Your task to perform on an android device: turn notification dots off Image 0: 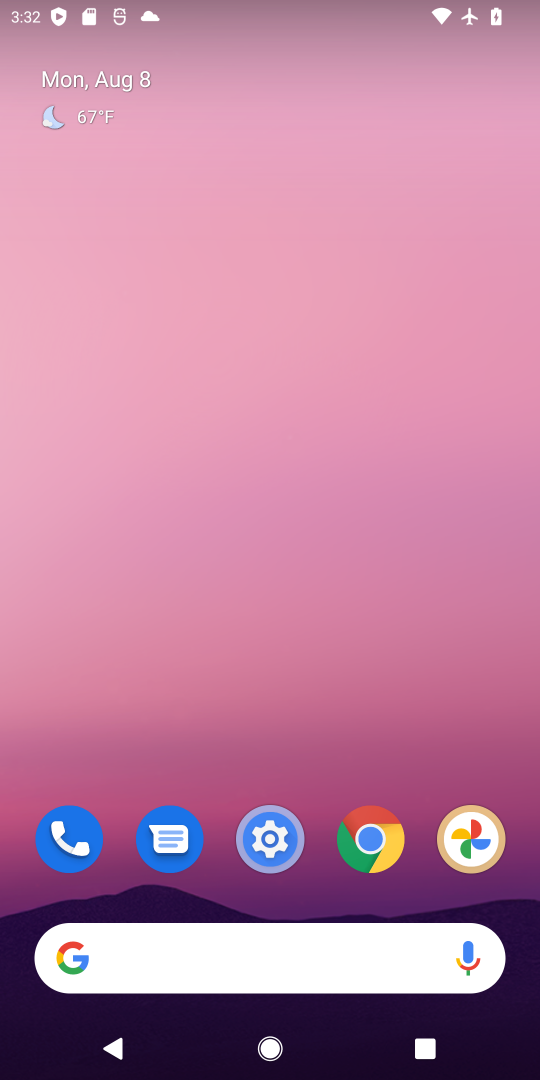
Step 0: press home button
Your task to perform on an android device: turn notification dots off Image 1: 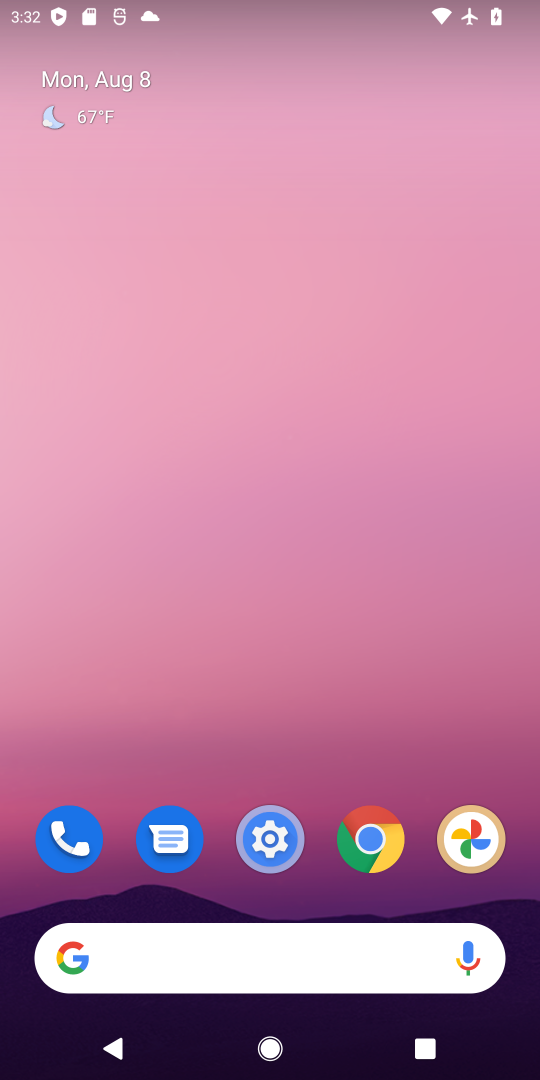
Step 1: drag from (409, 764) to (435, 332)
Your task to perform on an android device: turn notification dots off Image 2: 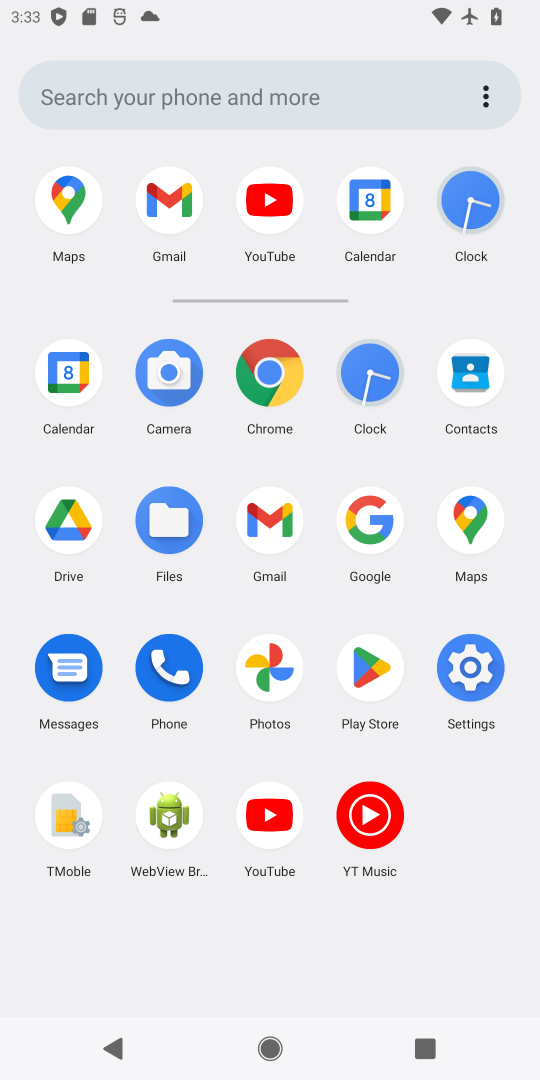
Step 2: click (475, 673)
Your task to perform on an android device: turn notification dots off Image 3: 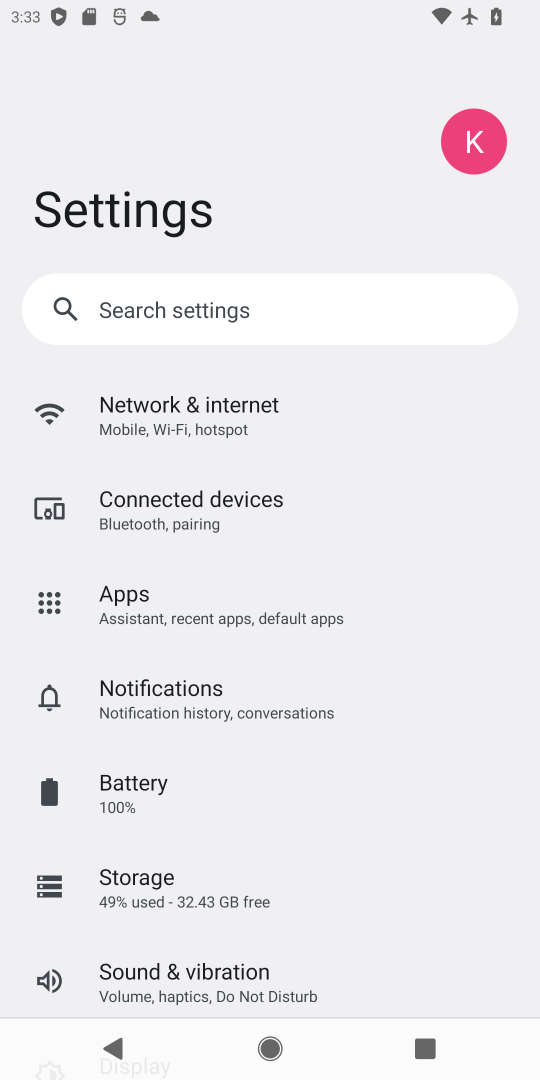
Step 3: drag from (434, 753) to (445, 594)
Your task to perform on an android device: turn notification dots off Image 4: 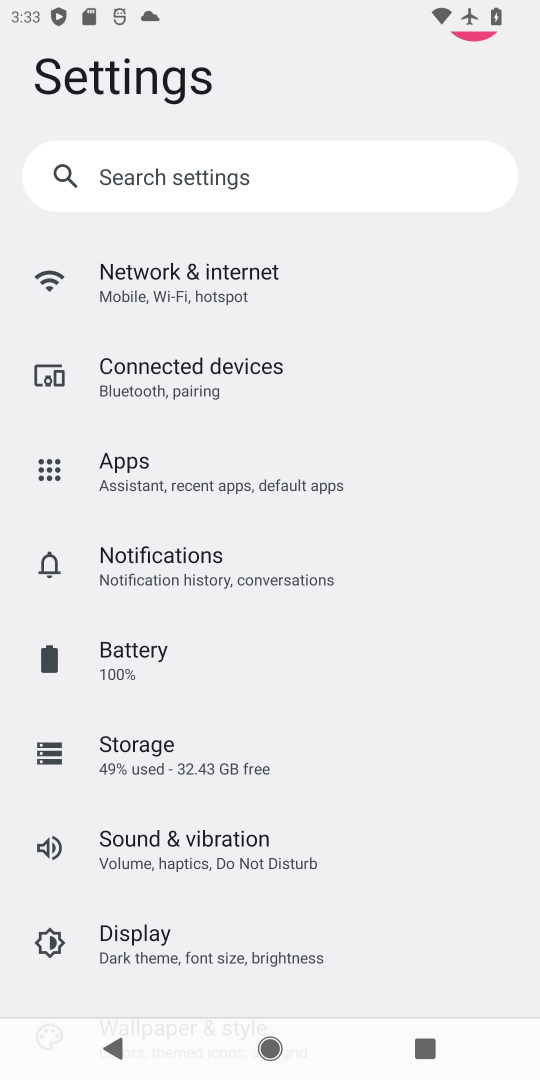
Step 4: drag from (445, 786) to (449, 599)
Your task to perform on an android device: turn notification dots off Image 5: 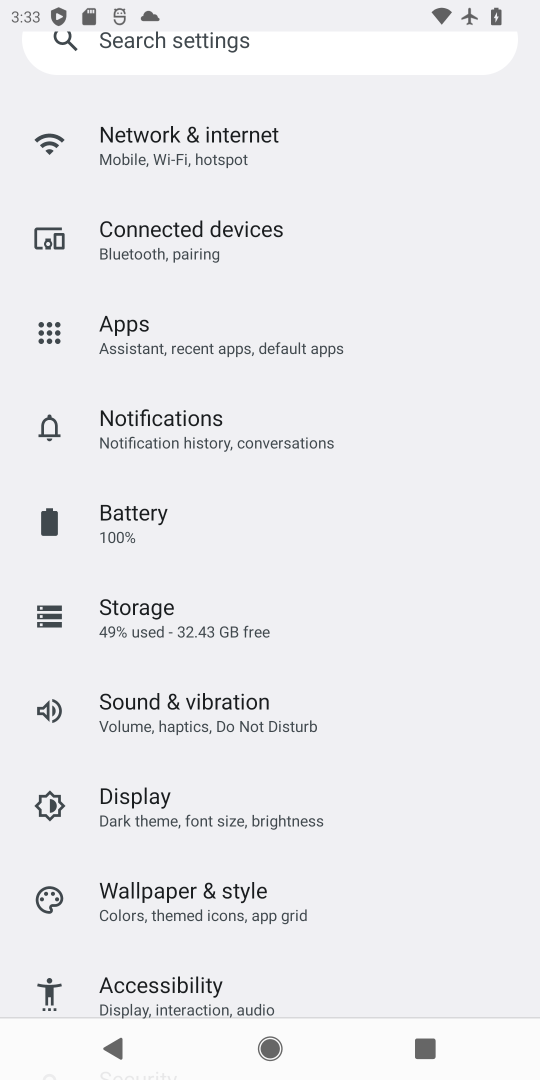
Step 5: drag from (428, 805) to (436, 620)
Your task to perform on an android device: turn notification dots off Image 6: 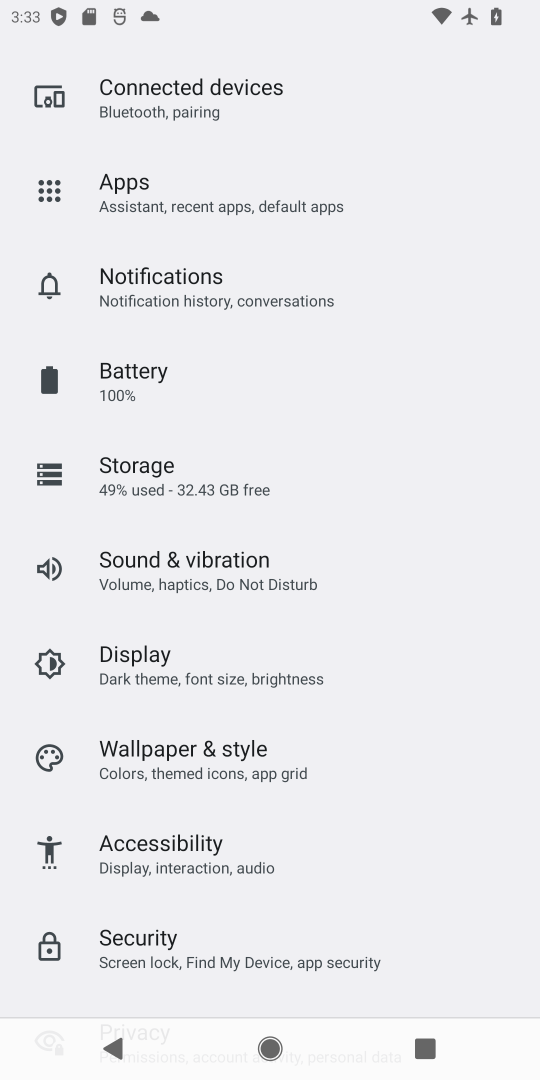
Step 6: drag from (454, 799) to (457, 623)
Your task to perform on an android device: turn notification dots off Image 7: 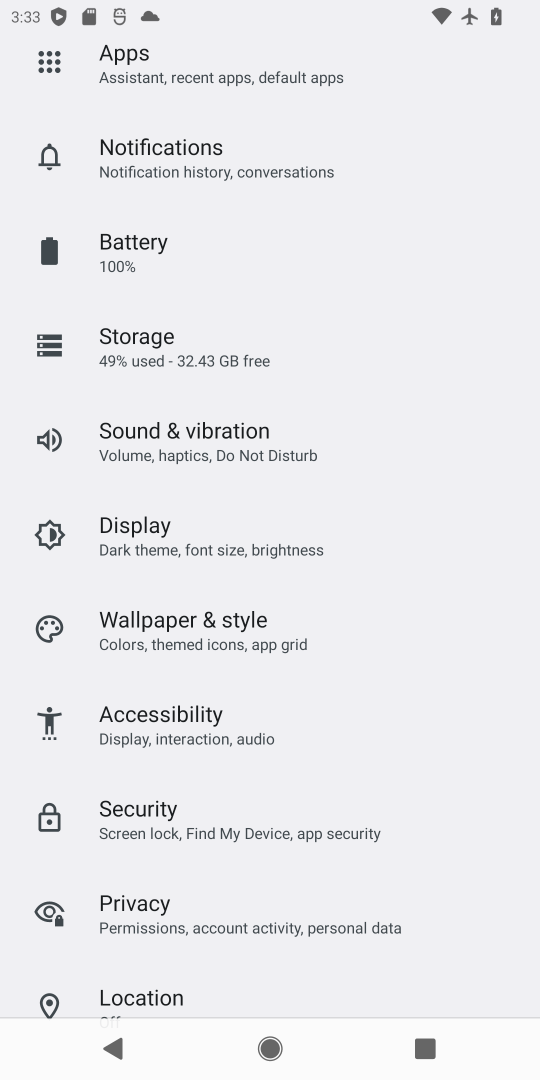
Step 7: drag from (456, 848) to (451, 660)
Your task to perform on an android device: turn notification dots off Image 8: 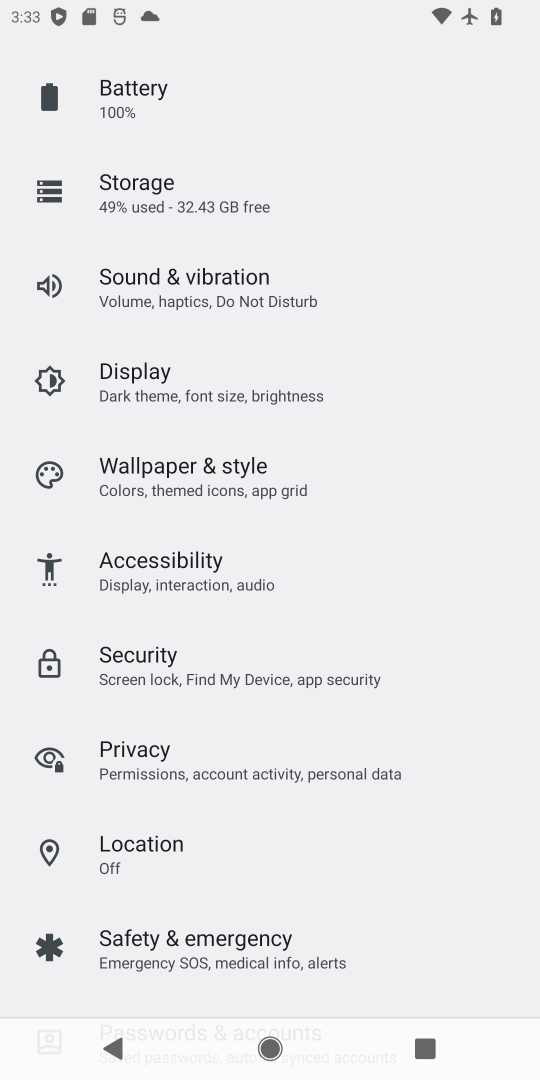
Step 8: drag from (455, 824) to (469, 697)
Your task to perform on an android device: turn notification dots off Image 9: 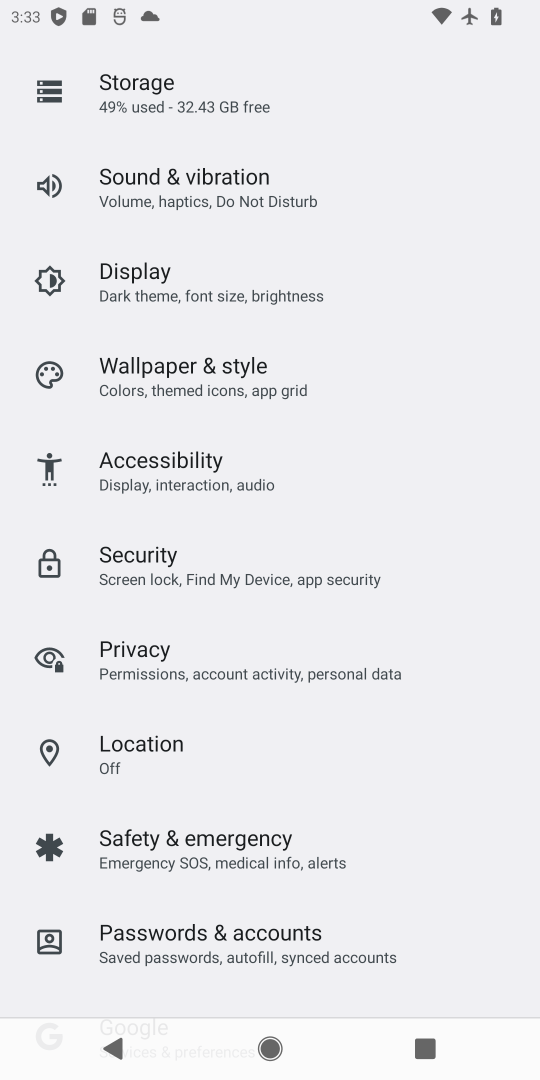
Step 9: drag from (451, 789) to (464, 599)
Your task to perform on an android device: turn notification dots off Image 10: 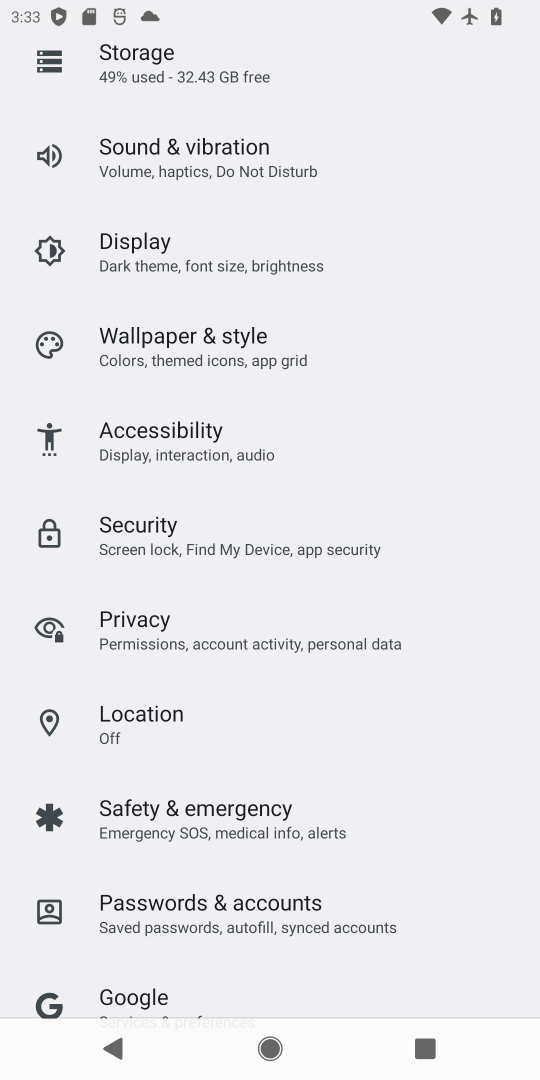
Step 10: drag from (465, 433) to (468, 608)
Your task to perform on an android device: turn notification dots off Image 11: 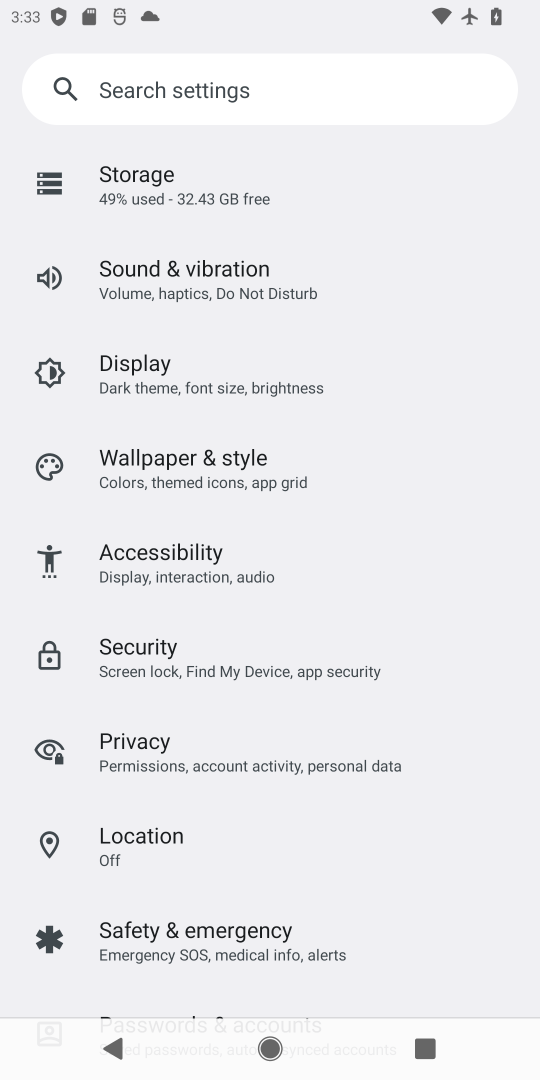
Step 11: drag from (456, 471) to (458, 623)
Your task to perform on an android device: turn notification dots off Image 12: 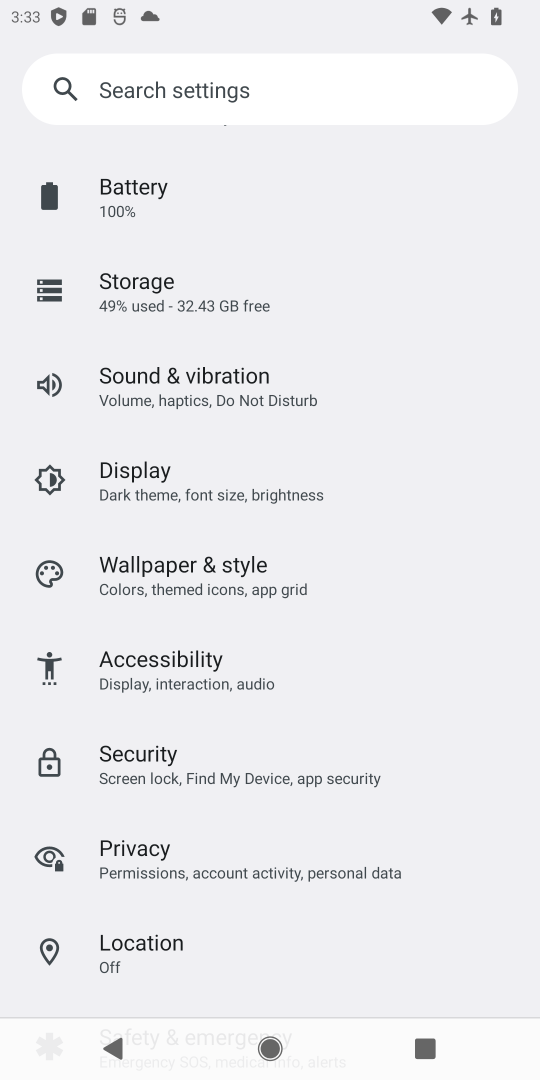
Step 12: drag from (459, 415) to (465, 614)
Your task to perform on an android device: turn notification dots off Image 13: 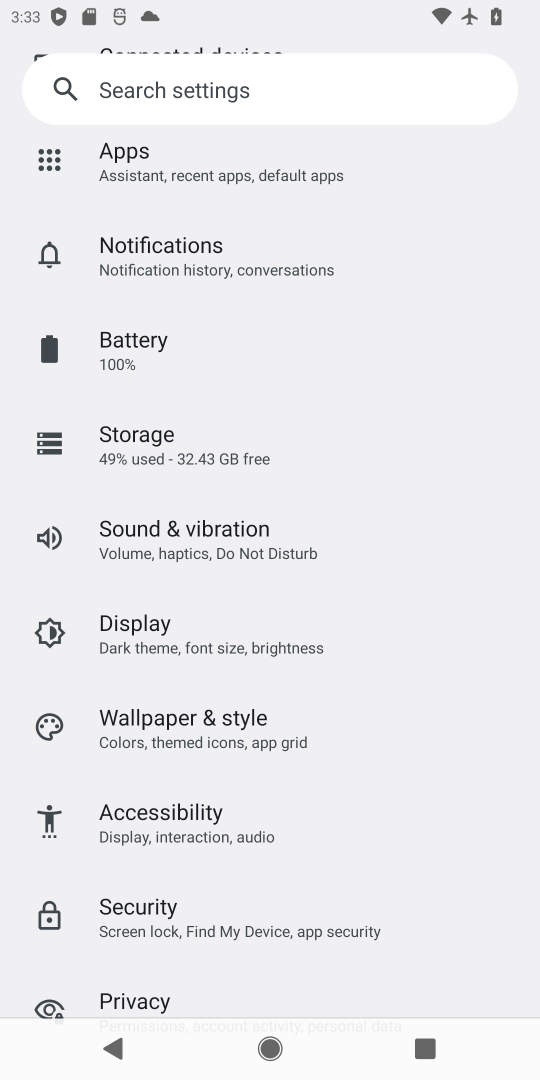
Step 13: drag from (445, 369) to (459, 575)
Your task to perform on an android device: turn notification dots off Image 14: 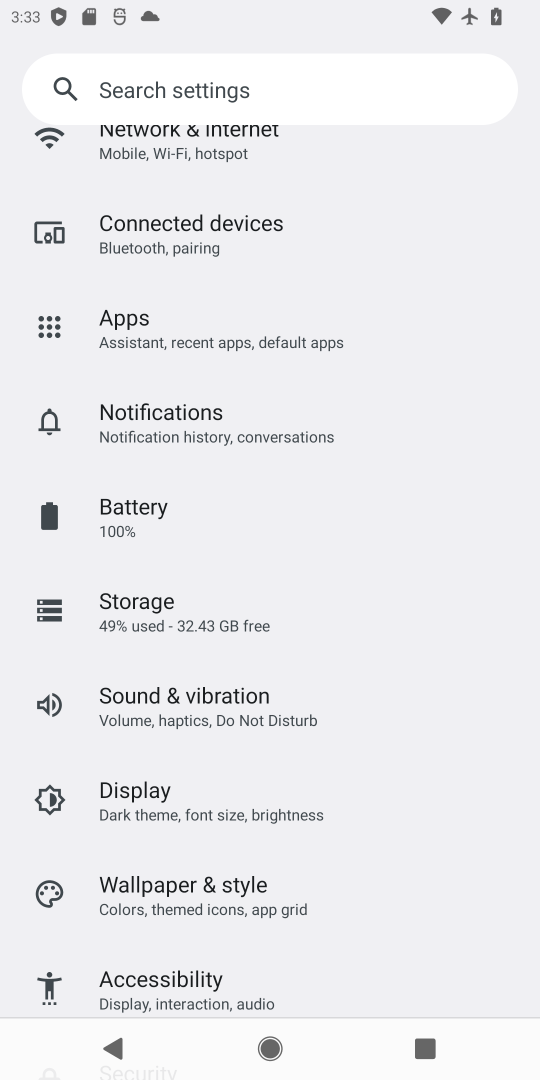
Step 14: drag from (476, 365) to (458, 594)
Your task to perform on an android device: turn notification dots off Image 15: 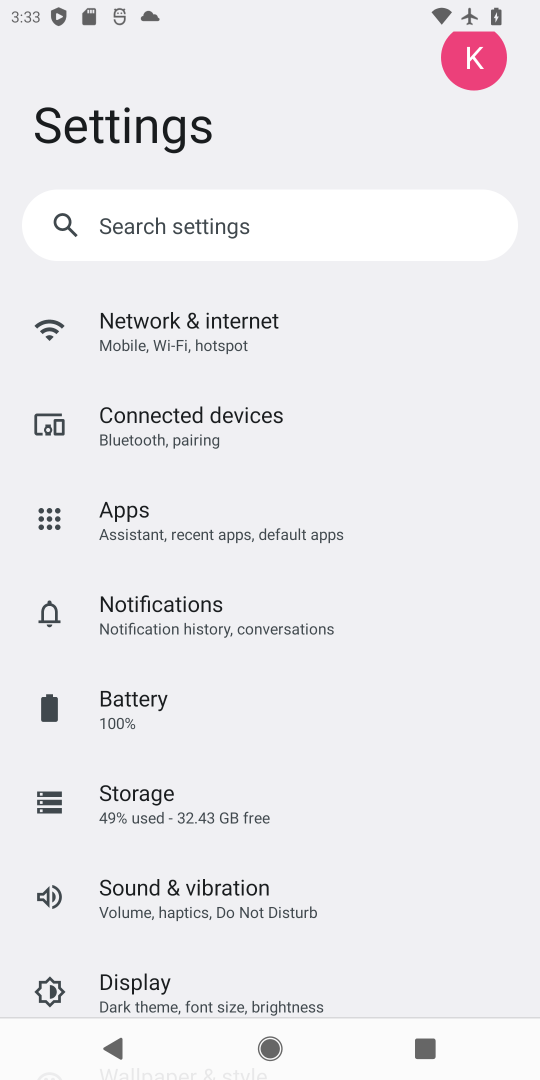
Step 15: click (360, 620)
Your task to perform on an android device: turn notification dots off Image 16: 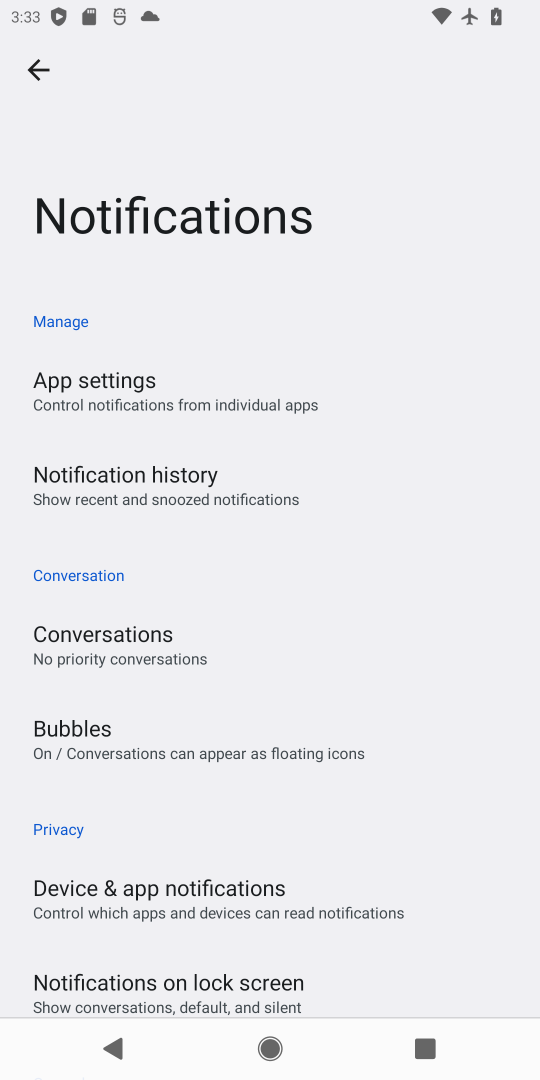
Step 16: task complete